Your task to perform on an android device: Open privacy settings Image 0: 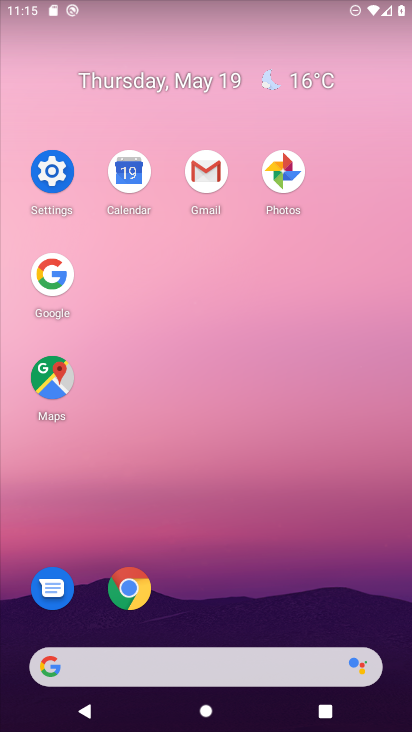
Step 0: click (51, 164)
Your task to perform on an android device: Open privacy settings Image 1: 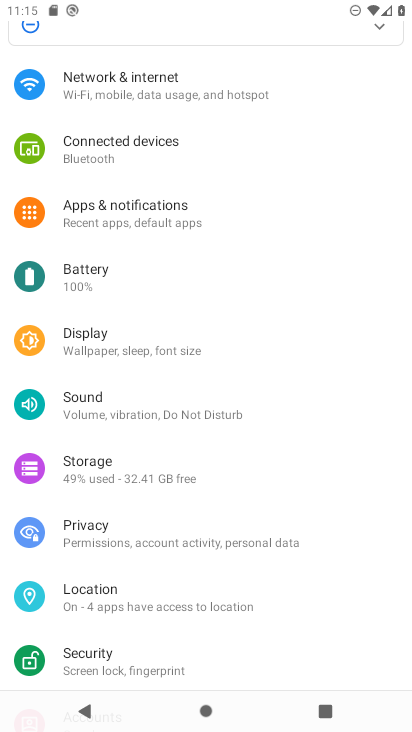
Step 1: click (176, 525)
Your task to perform on an android device: Open privacy settings Image 2: 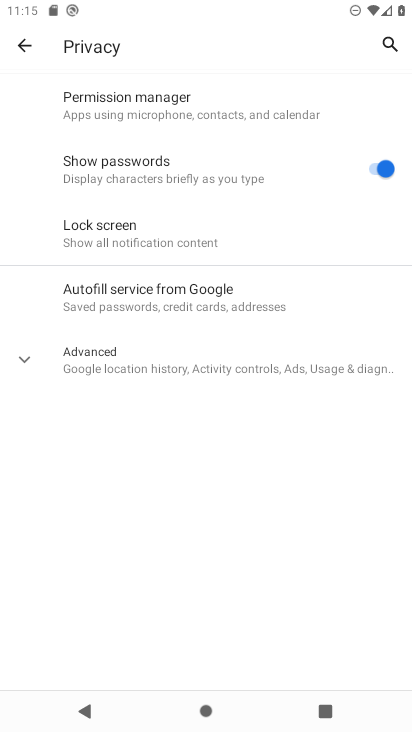
Step 2: task complete